Your task to perform on an android device: open wifi settings Image 0: 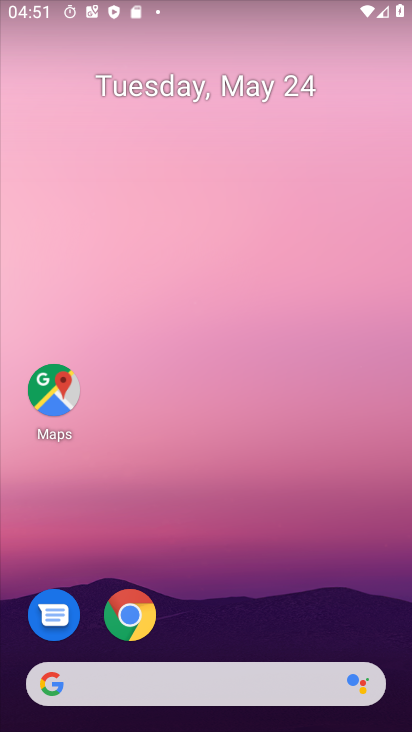
Step 0: drag from (109, 27) to (166, 543)
Your task to perform on an android device: open wifi settings Image 1: 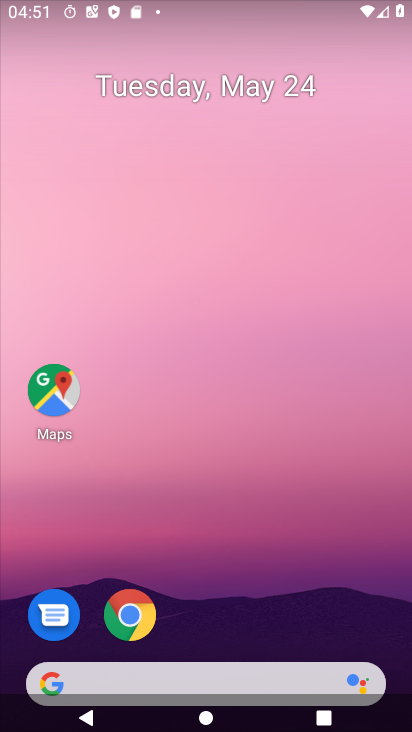
Step 1: drag from (76, 3) to (128, 493)
Your task to perform on an android device: open wifi settings Image 2: 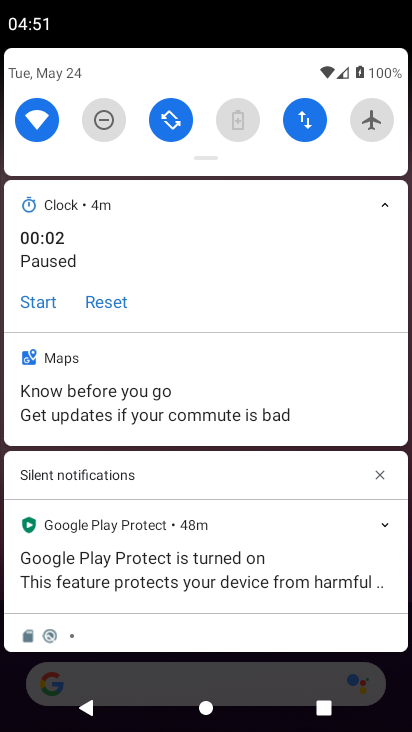
Step 2: click (34, 126)
Your task to perform on an android device: open wifi settings Image 3: 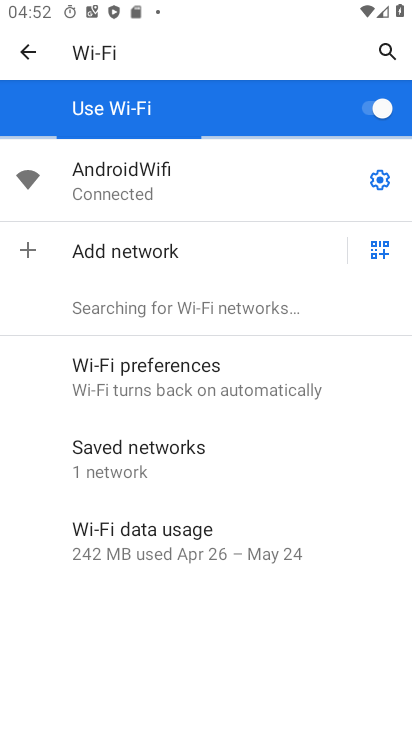
Step 3: task complete